Your task to perform on an android device: Play the last video I watched on Youtube Image 0: 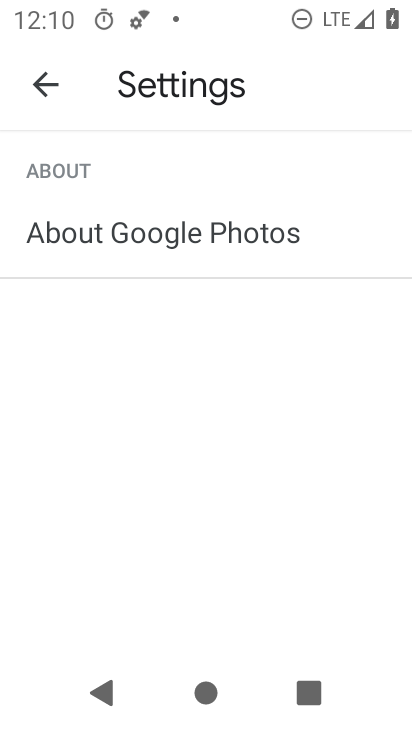
Step 0: press home button
Your task to perform on an android device: Play the last video I watched on Youtube Image 1: 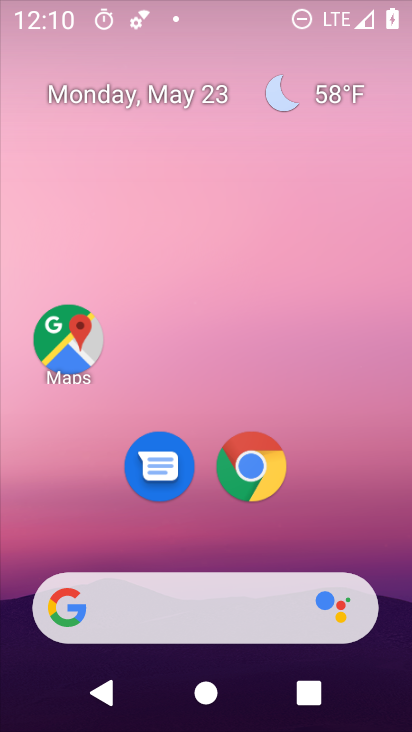
Step 1: drag from (200, 533) to (232, 4)
Your task to perform on an android device: Play the last video I watched on Youtube Image 2: 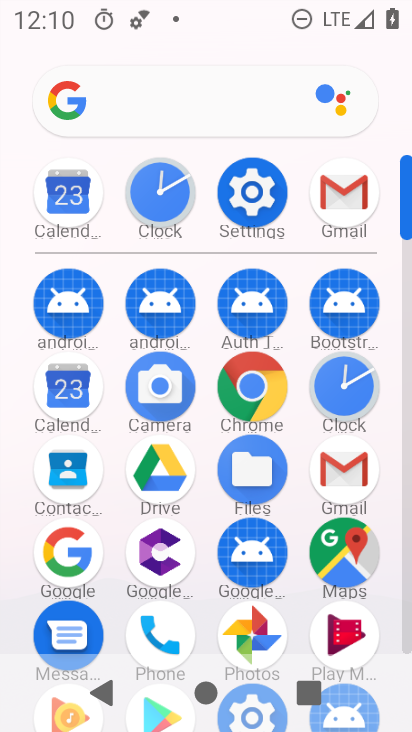
Step 2: drag from (205, 506) to (222, 146)
Your task to perform on an android device: Play the last video I watched on Youtube Image 3: 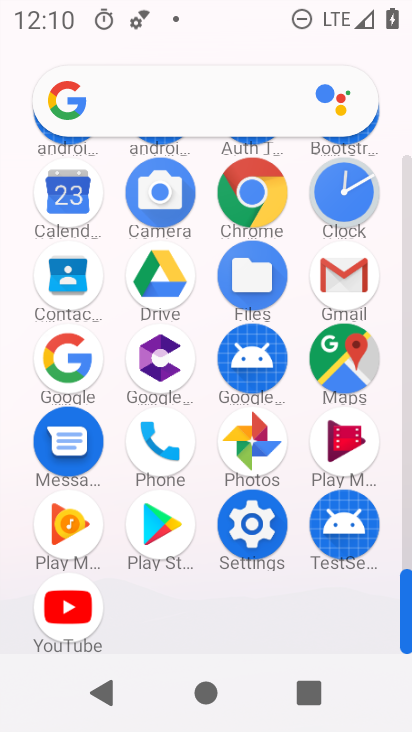
Step 3: click (68, 608)
Your task to perform on an android device: Play the last video I watched on Youtube Image 4: 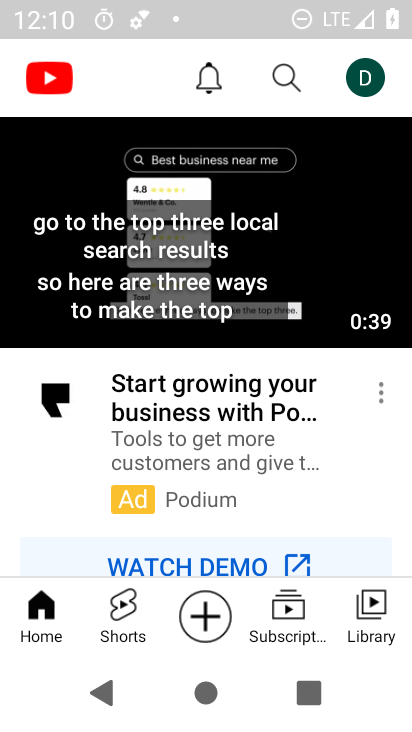
Step 4: click (282, 74)
Your task to perform on an android device: Play the last video I watched on Youtube Image 5: 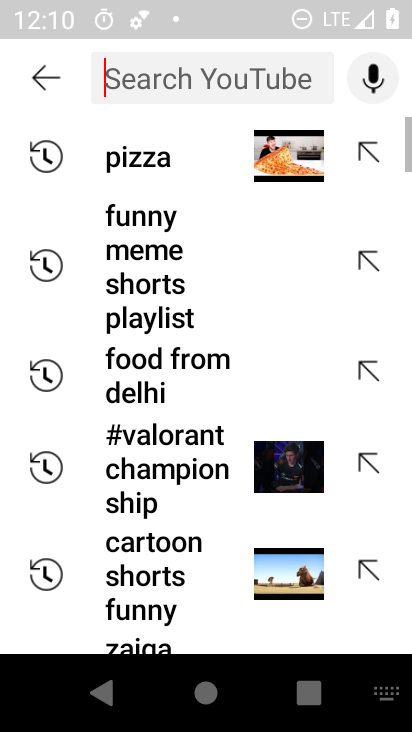
Step 5: click (175, 150)
Your task to perform on an android device: Play the last video I watched on Youtube Image 6: 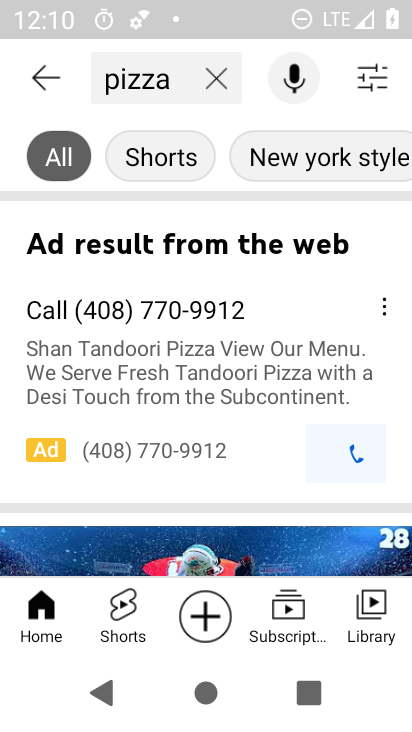
Step 6: drag from (258, 458) to (288, 101)
Your task to perform on an android device: Play the last video I watched on Youtube Image 7: 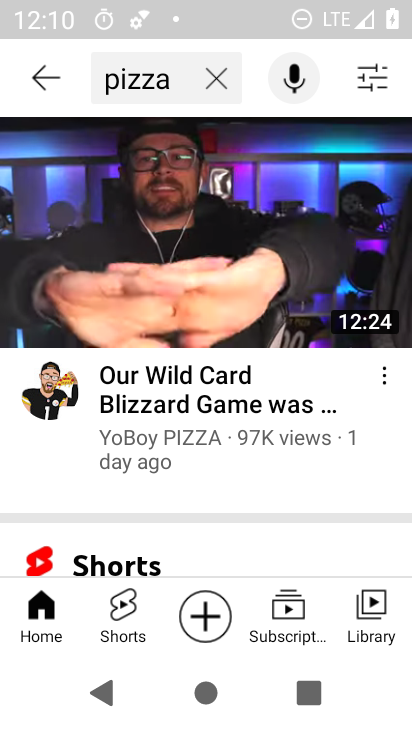
Step 7: click (192, 253)
Your task to perform on an android device: Play the last video I watched on Youtube Image 8: 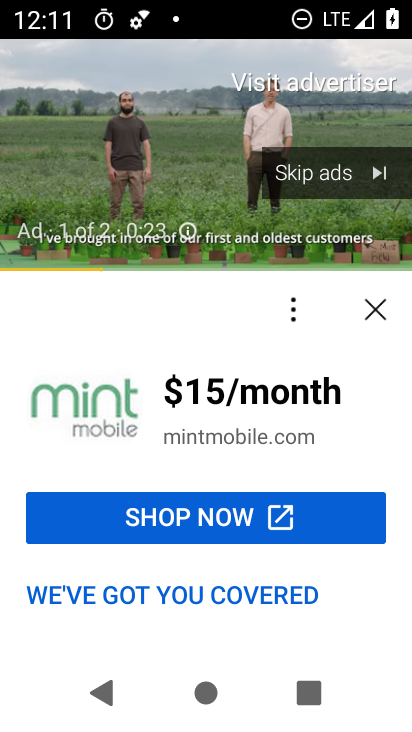
Step 8: task complete